Your task to perform on an android device: Do I have any events tomorrow? Image 0: 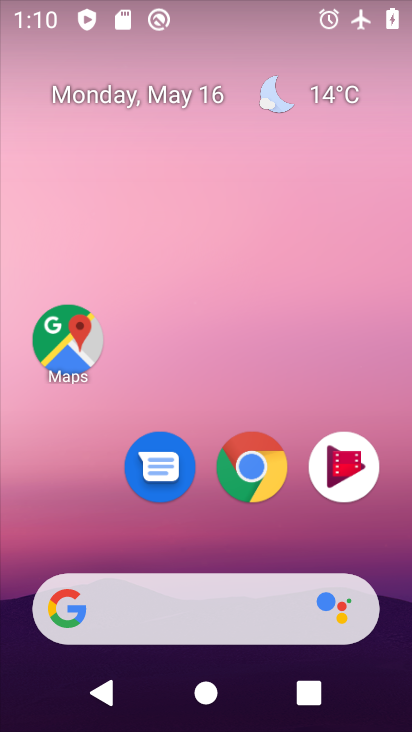
Step 0: drag from (246, 520) to (265, 140)
Your task to perform on an android device: Do I have any events tomorrow? Image 1: 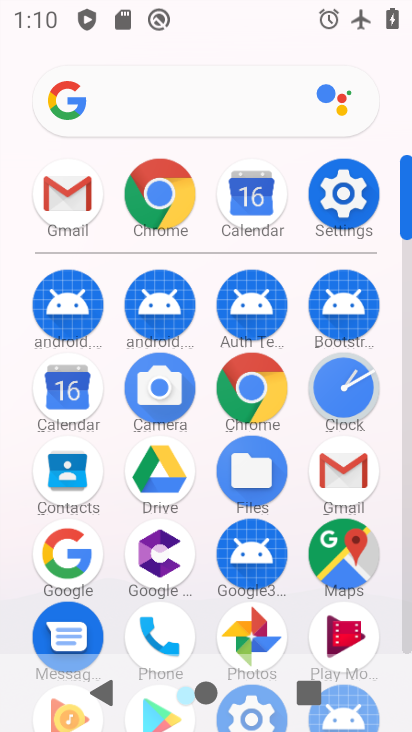
Step 1: click (60, 390)
Your task to perform on an android device: Do I have any events tomorrow? Image 2: 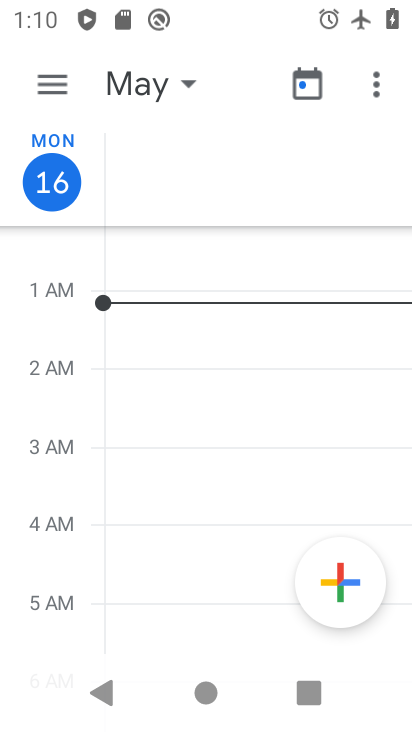
Step 2: click (47, 75)
Your task to perform on an android device: Do I have any events tomorrow? Image 3: 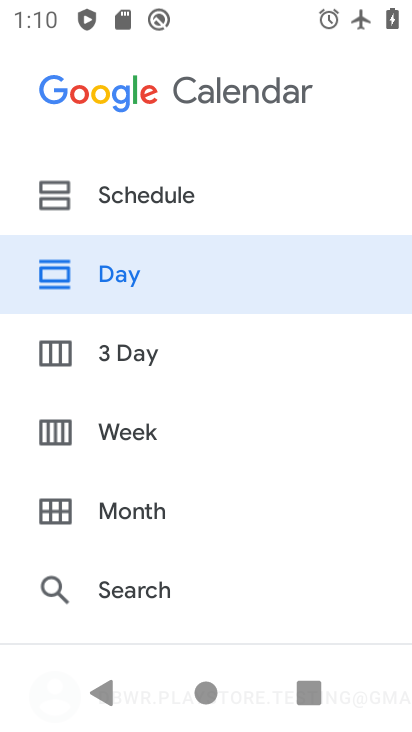
Step 3: click (154, 497)
Your task to perform on an android device: Do I have any events tomorrow? Image 4: 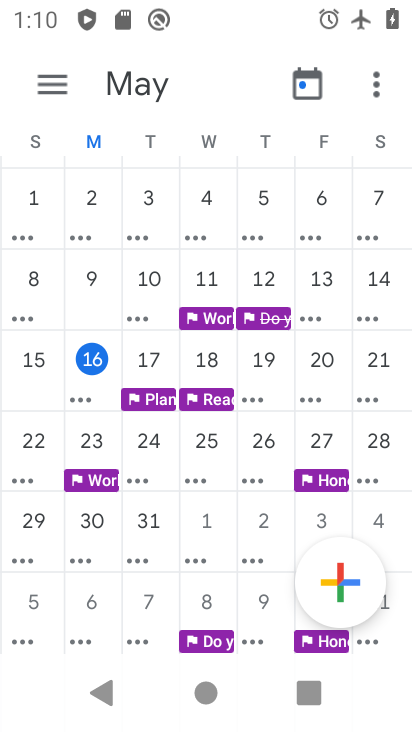
Step 4: click (132, 372)
Your task to perform on an android device: Do I have any events tomorrow? Image 5: 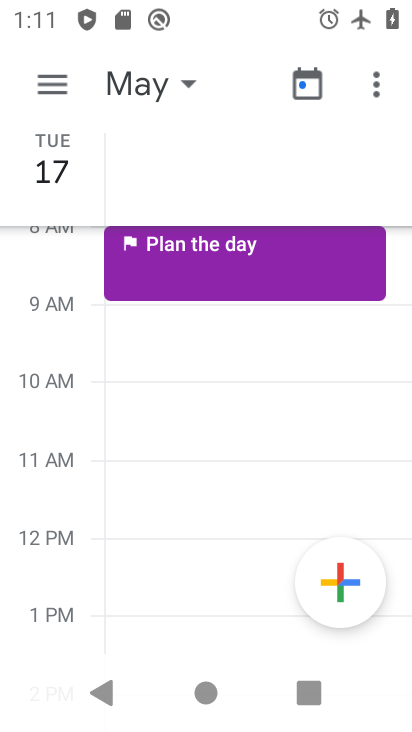
Step 5: task complete